Your task to perform on an android device: check storage Image 0: 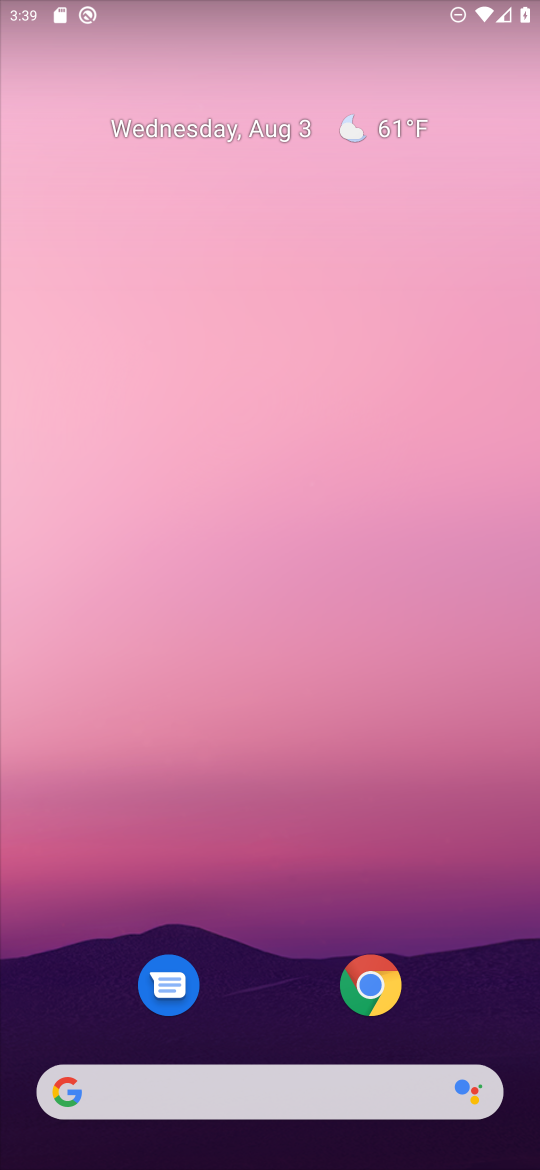
Step 0: drag from (266, 907) to (251, 175)
Your task to perform on an android device: check storage Image 1: 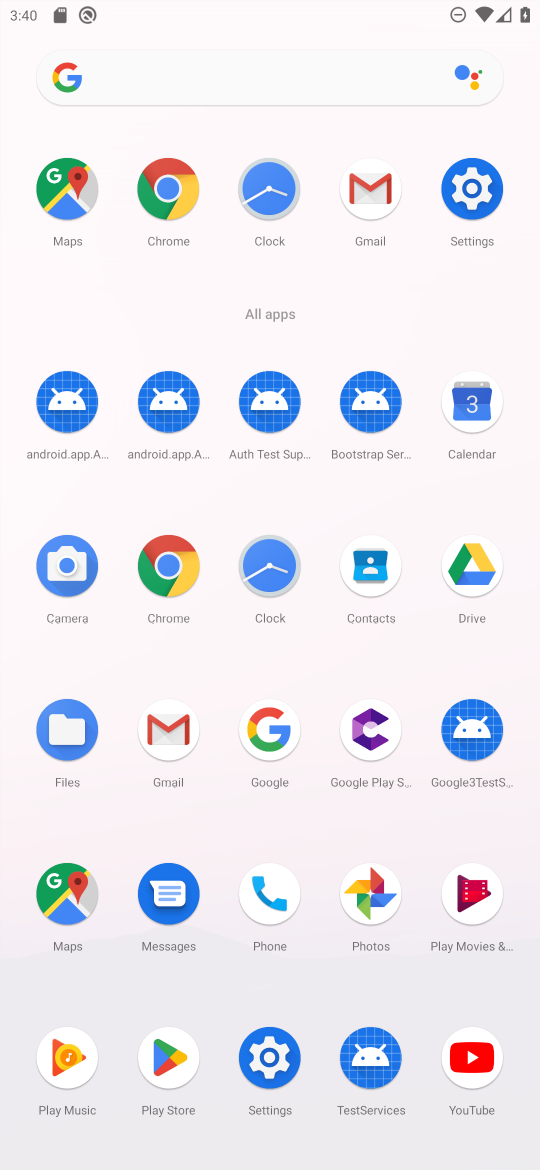
Step 1: click (474, 191)
Your task to perform on an android device: check storage Image 2: 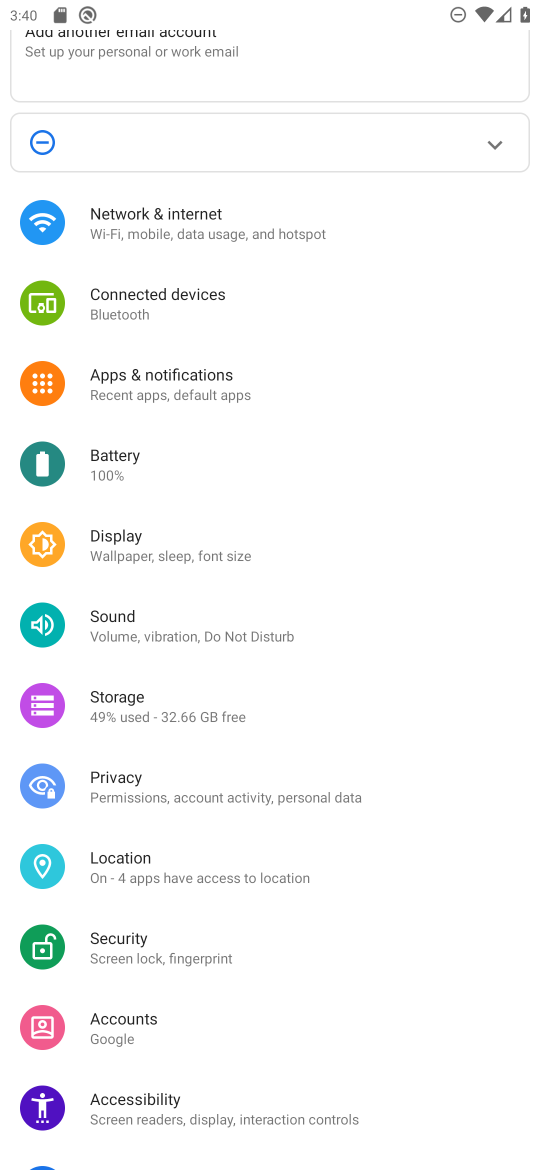
Step 2: click (135, 690)
Your task to perform on an android device: check storage Image 3: 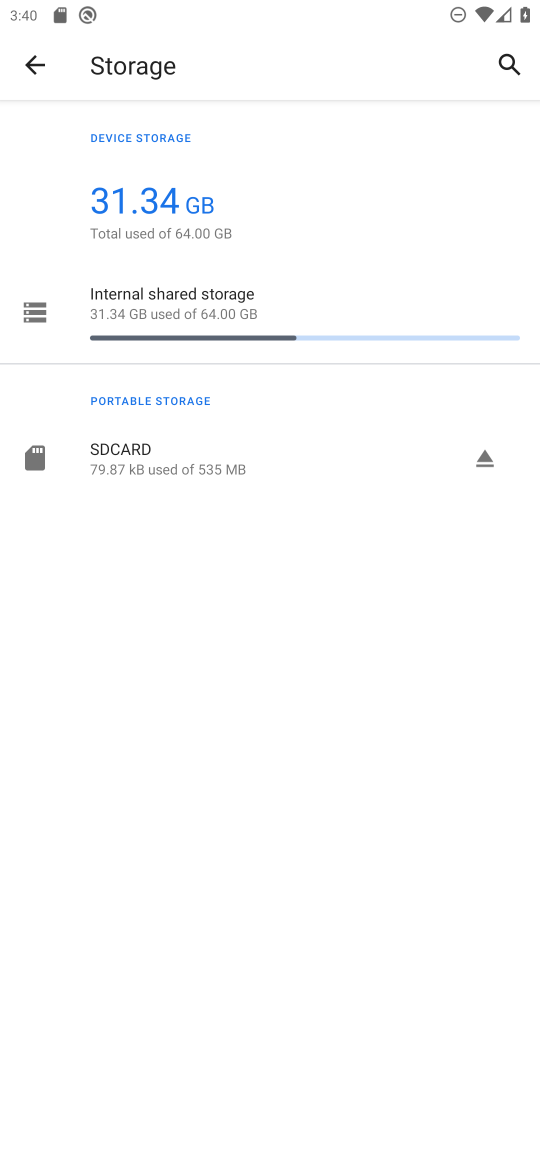
Step 3: task complete